Your task to perform on an android device: Add "razer nari" to the cart on newegg.com, then select checkout. Image 0: 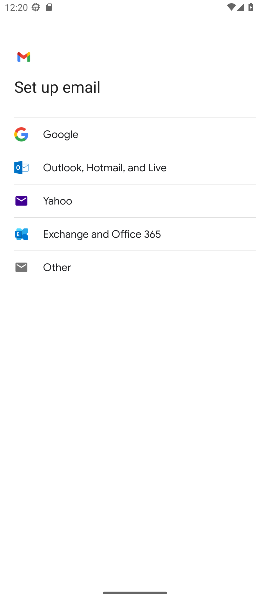
Step 0: press home button
Your task to perform on an android device: Add "razer nari" to the cart on newegg.com, then select checkout. Image 1: 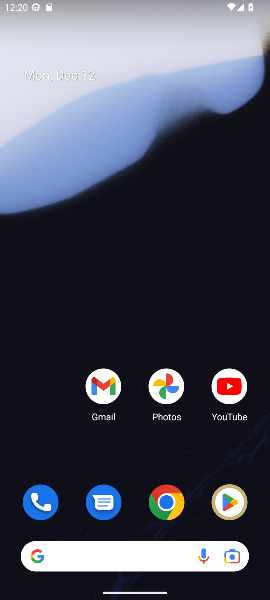
Step 1: click (132, 563)
Your task to perform on an android device: Add "razer nari" to the cart on newegg.com, then select checkout. Image 2: 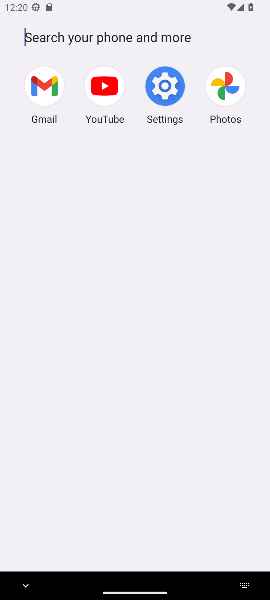
Step 2: press home button
Your task to perform on an android device: Add "razer nari" to the cart on newegg.com, then select checkout. Image 3: 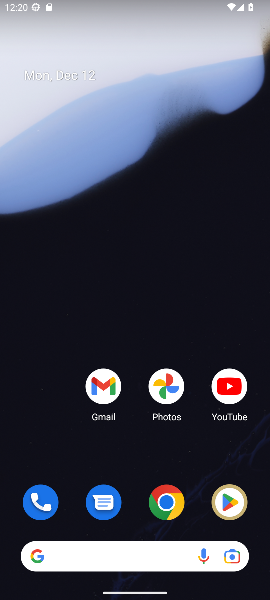
Step 3: click (181, 513)
Your task to perform on an android device: Add "razer nari" to the cart on newegg.com, then select checkout. Image 4: 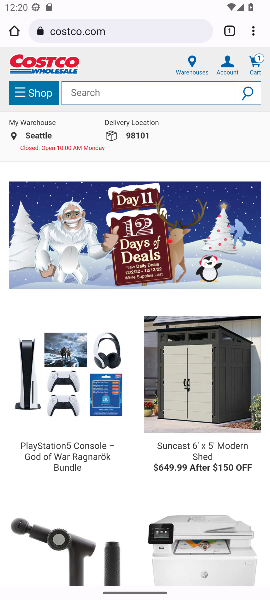
Step 4: click (131, 32)
Your task to perform on an android device: Add "razer nari" to the cart on newegg.com, then select checkout. Image 5: 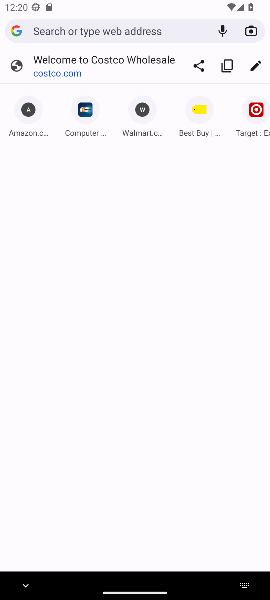
Step 5: type "newegg"
Your task to perform on an android device: Add "razer nari" to the cart on newegg.com, then select checkout. Image 6: 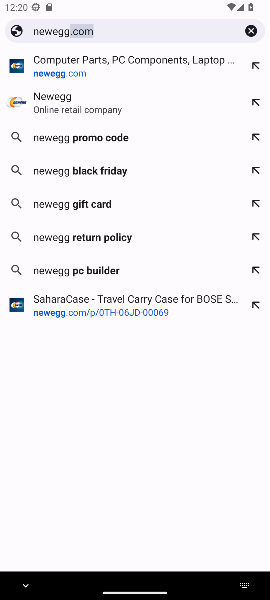
Step 6: click (132, 63)
Your task to perform on an android device: Add "razer nari" to the cart on newegg.com, then select checkout. Image 7: 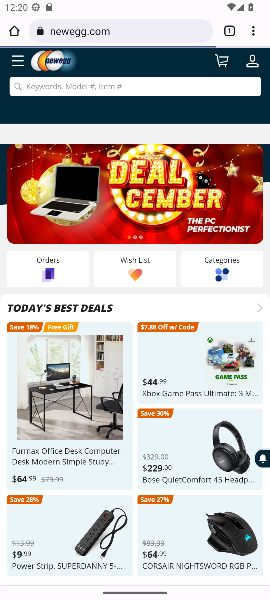
Step 7: click (111, 88)
Your task to perform on an android device: Add "razer nari" to the cart on newegg.com, then select checkout. Image 8: 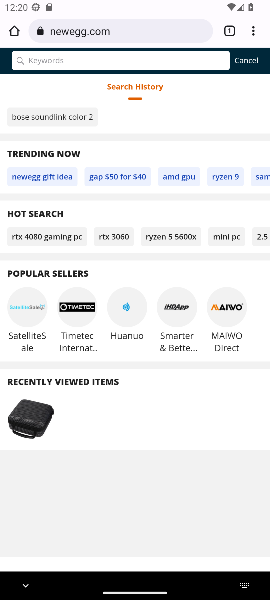
Step 8: type "razer nari"
Your task to perform on an android device: Add "razer nari" to the cart on newegg.com, then select checkout. Image 9: 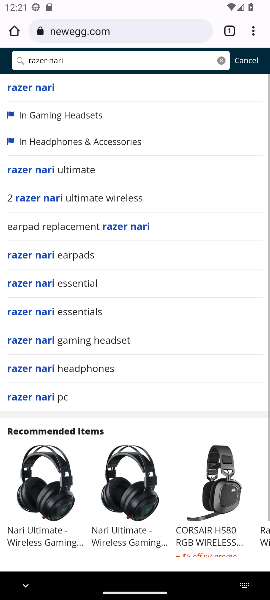
Step 9: click (42, 91)
Your task to perform on an android device: Add "razer nari" to the cart on newegg.com, then select checkout. Image 10: 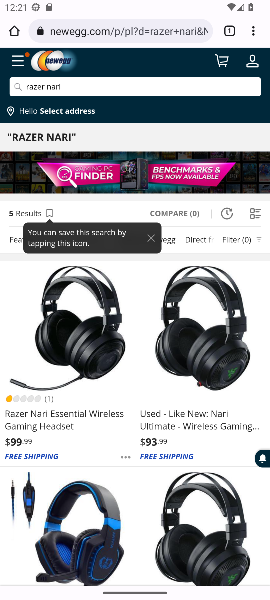
Step 10: click (96, 326)
Your task to perform on an android device: Add "razer nari" to the cart on newegg.com, then select checkout. Image 11: 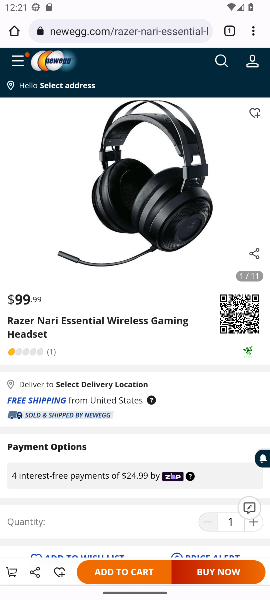
Step 11: click (117, 572)
Your task to perform on an android device: Add "razer nari" to the cart on newegg.com, then select checkout. Image 12: 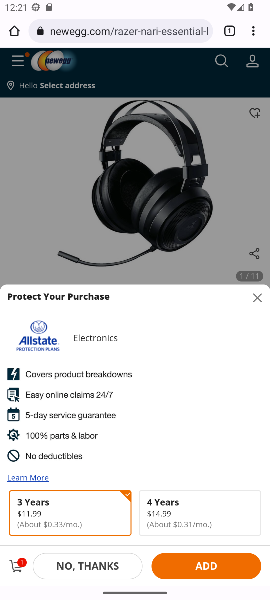
Step 12: task complete